Your task to perform on an android device: What's the price of the new iPhone on eBay? Image 0: 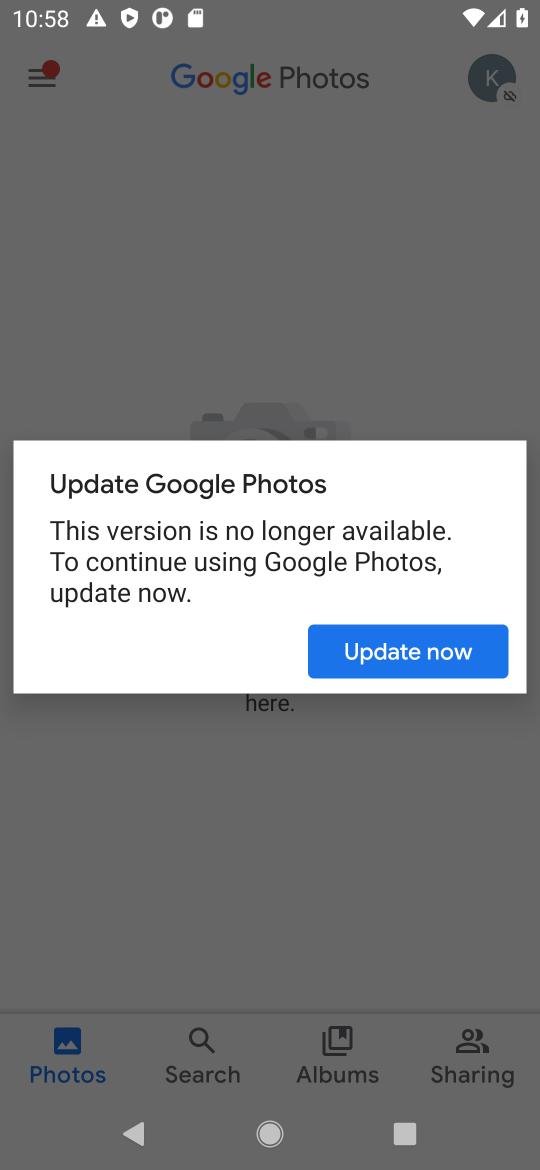
Step 0: press home button
Your task to perform on an android device: What's the price of the new iPhone on eBay? Image 1: 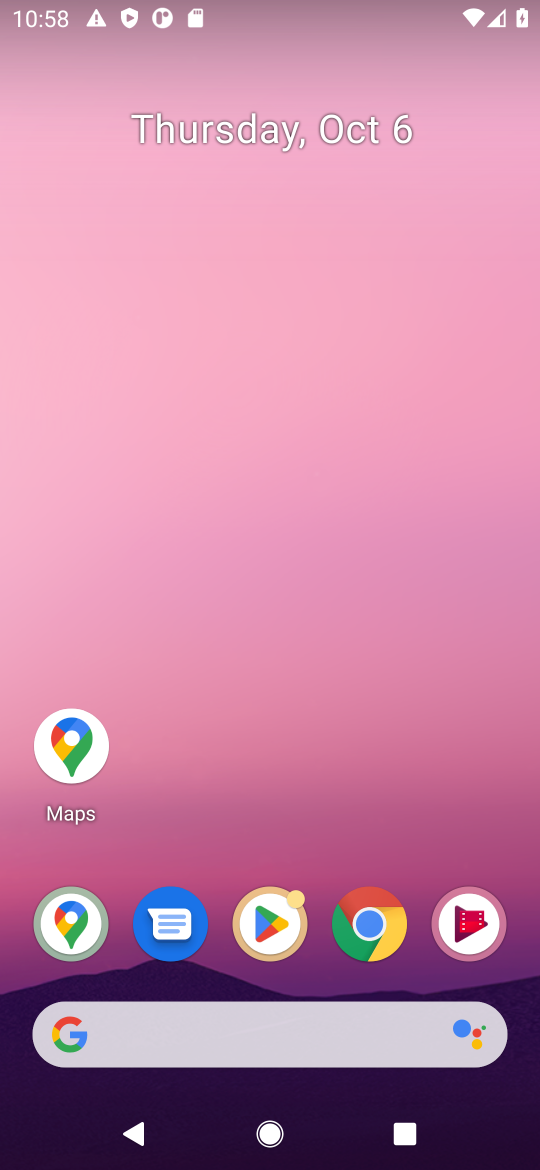
Step 1: click (367, 927)
Your task to perform on an android device: What's the price of the new iPhone on eBay? Image 2: 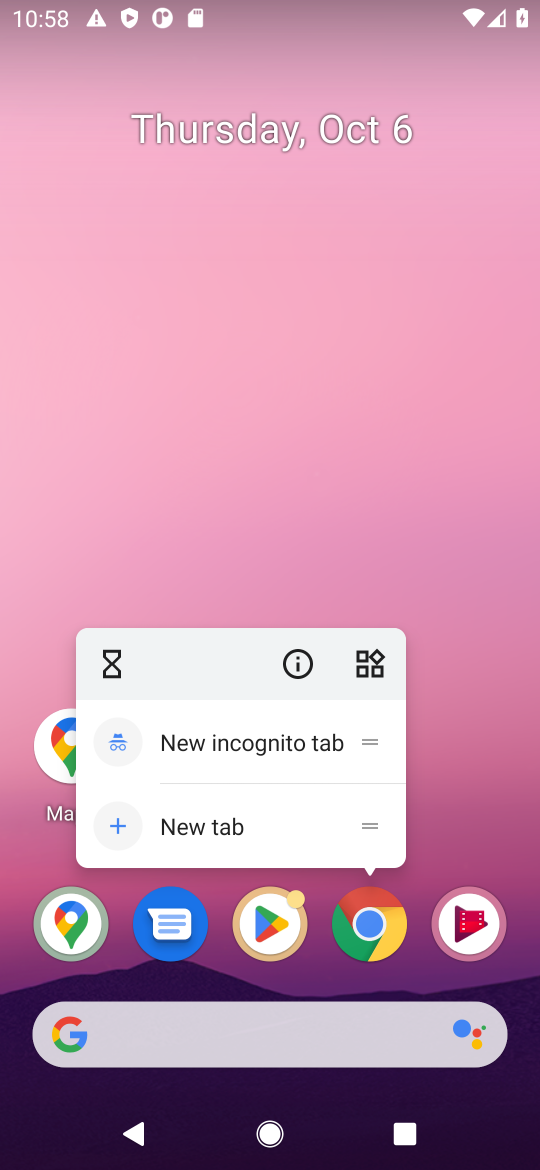
Step 2: click (367, 927)
Your task to perform on an android device: What's the price of the new iPhone on eBay? Image 3: 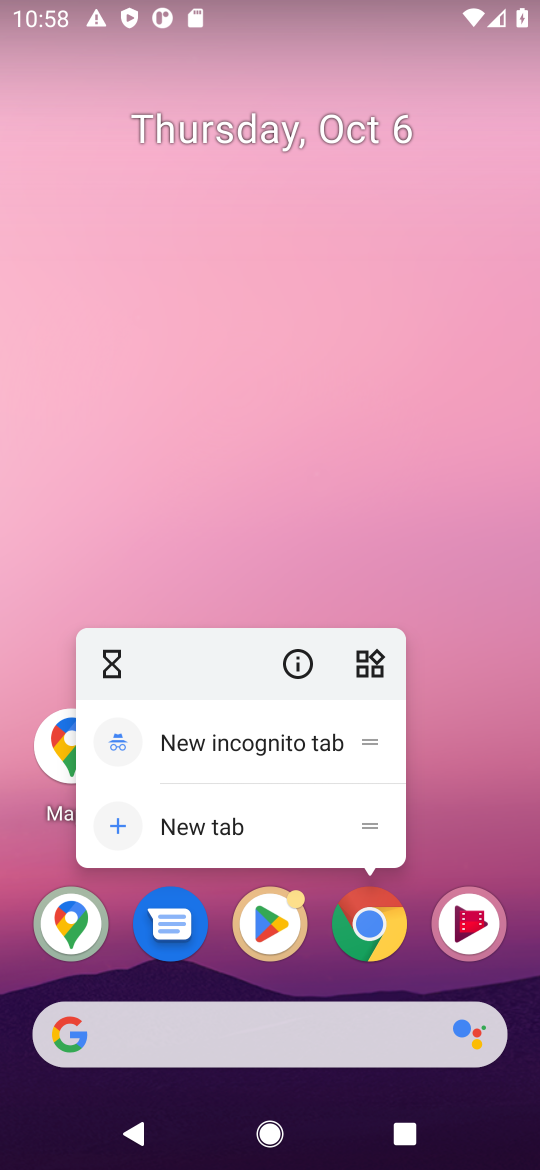
Step 3: click (365, 936)
Your task to perform on an android device: What's the price of the new iPhone on eBay? Image 4: 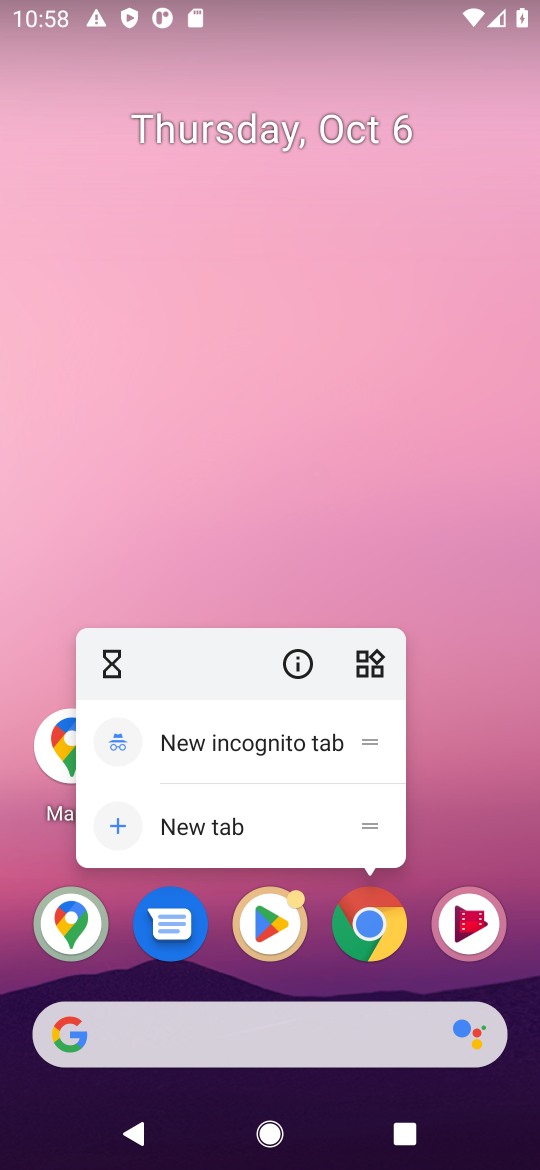
Step 4: click (374, 928)
Your task to perform on an android device: What's the price of the new iPhone on eBay? Image 5: 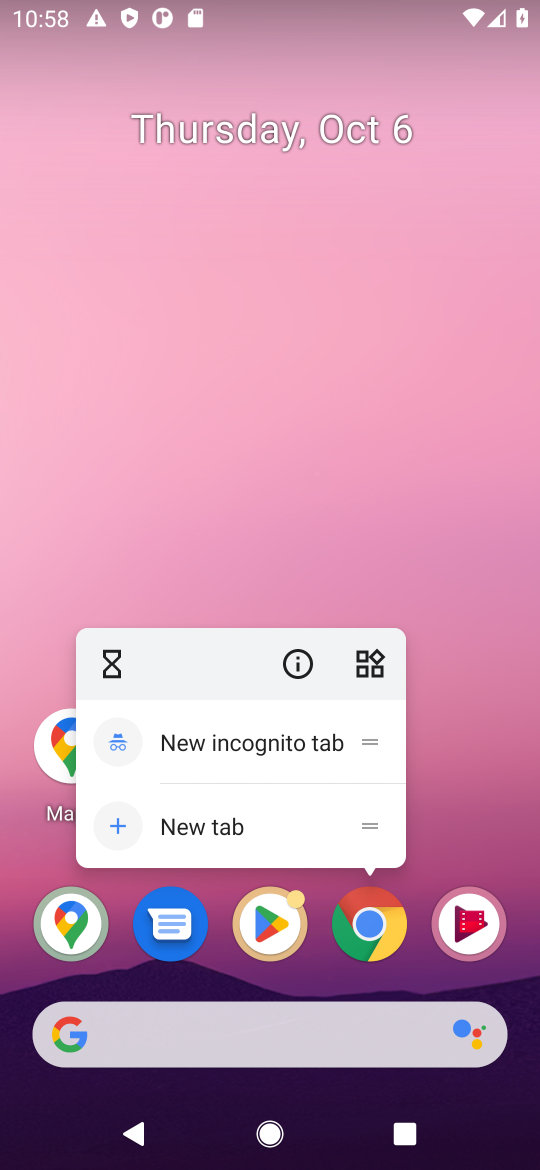
Step 5: click (374, 928)
Your task to perform on an android device: What's the price of the new iPhone on eBay? Image 6: 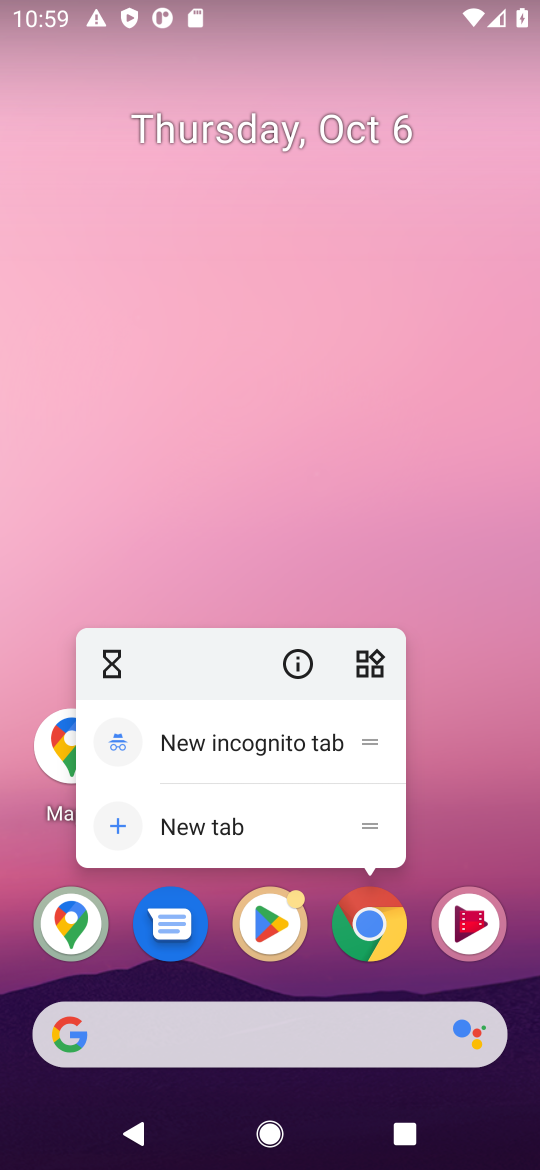
Step 6: click (374, 930)
Your task to perform on an android device: What's the price of the new iPhone on eBay? Image 7: 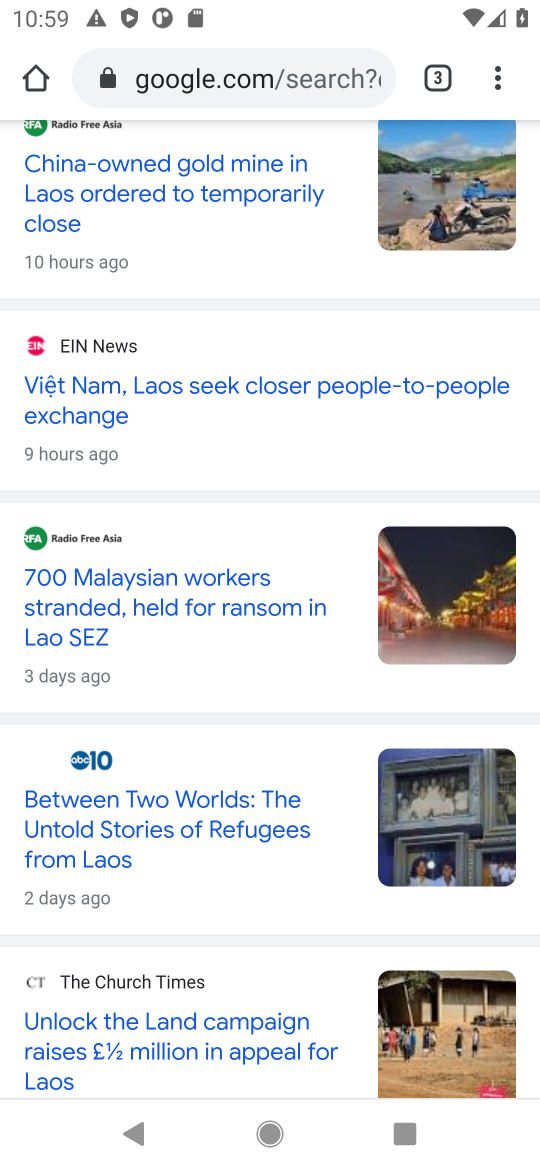
Step 7: click (304, 77)
Your task to perform on an android device: What's the price of the new iPhone on eBay? Image 8: 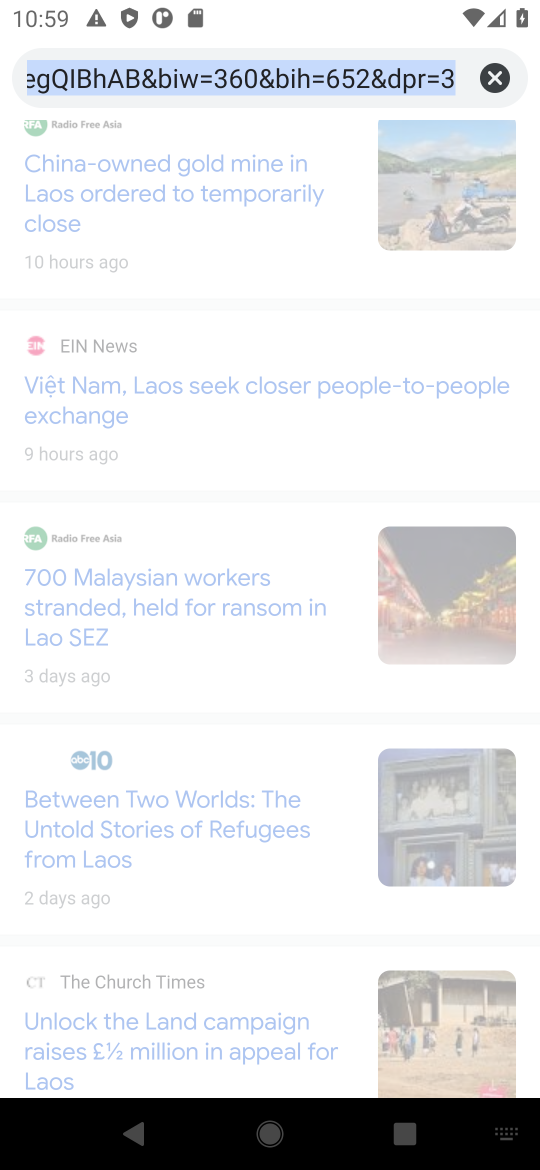
Step 8: click (481, 70)
Your task to perform on an android device: What's the price of the new iPhone on eBay? Image 9: 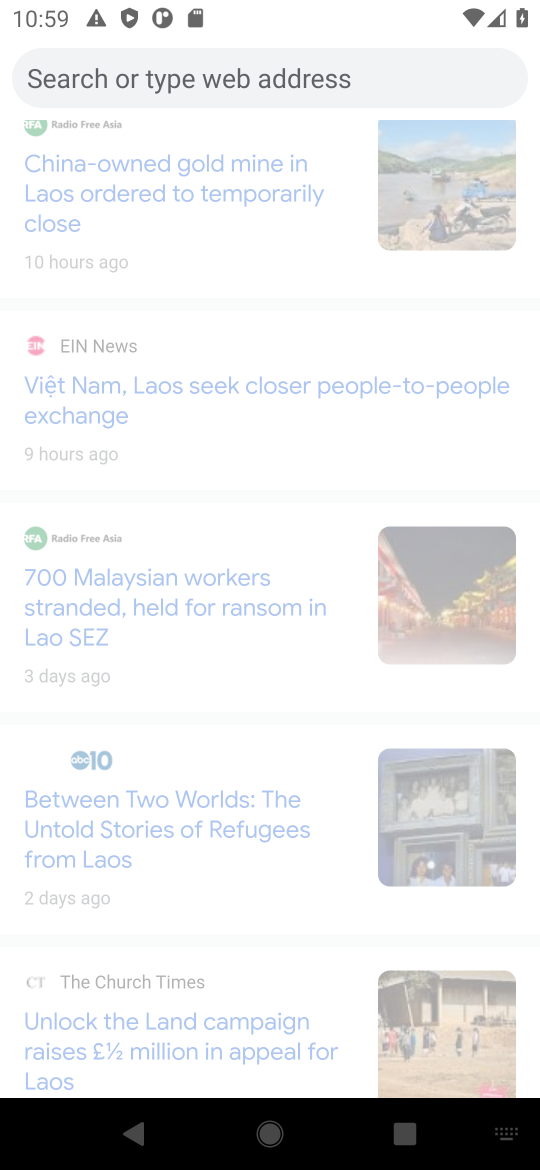
Step 9: type "price of the new iPhone on eBay"
Your task to perform on an android device: What's the price of the new iPhone on eBay? Image 10: 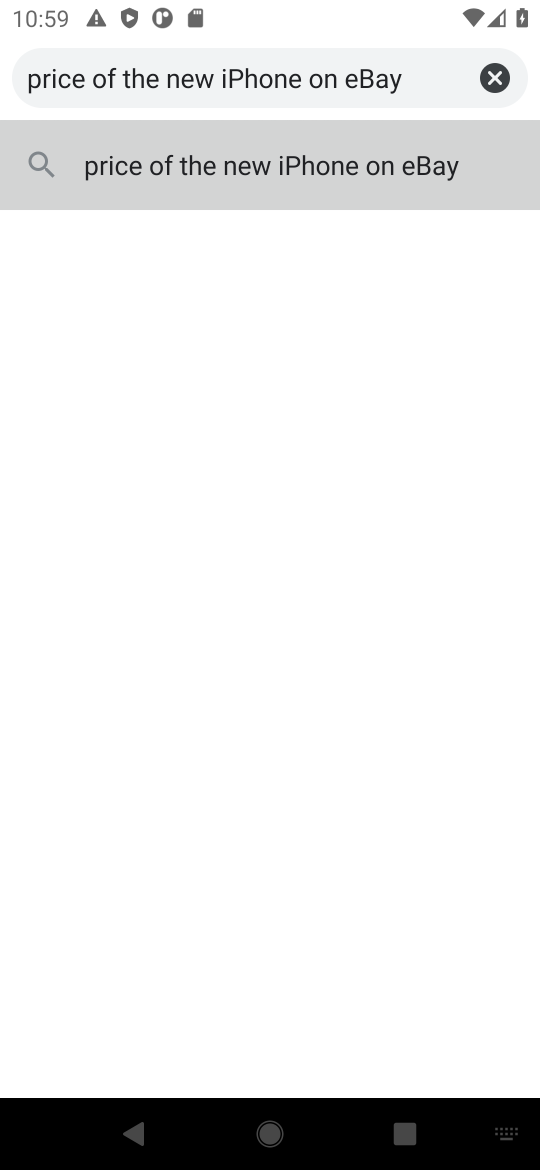
Step 10: click (309, 160)
Your task to perform on an android device: What's the price of the new iPhone on eBay? Image 11: 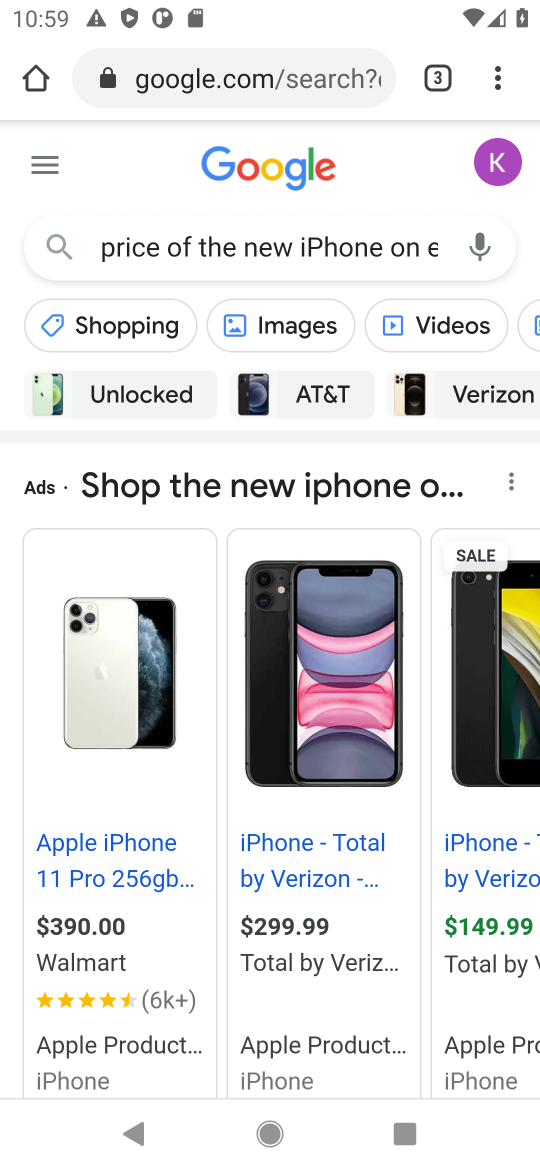
Step 11: drag from (235, 955) to (466, 183)
Your task to perform on an android device: What's the price of the new iPhone on eBay? Image 12: 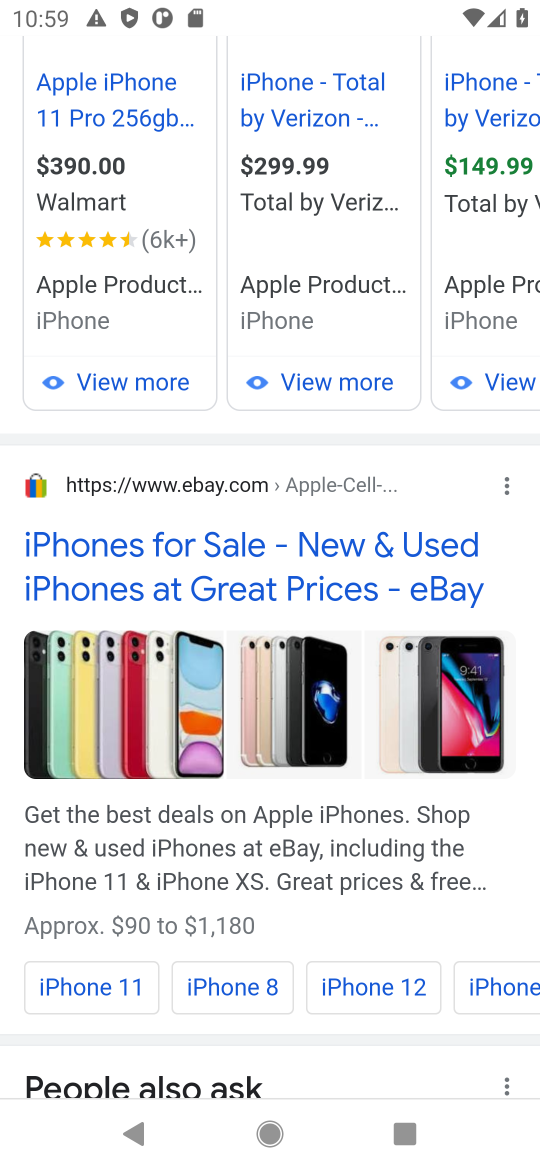
Step 12: click (339, 544)
Your task to perform on an android device: What's the price of the new iPhone on eBay? Image 13: 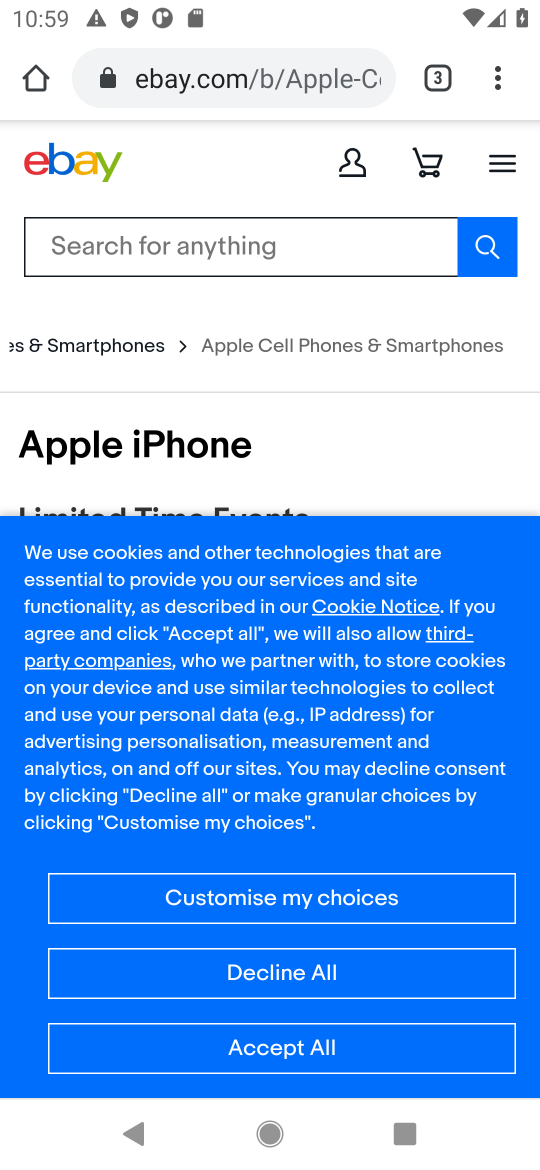
Step 13: click (281, 1052)
Your task to perform on an android device: What's the price of the new iPhone on eBay? Image 14: 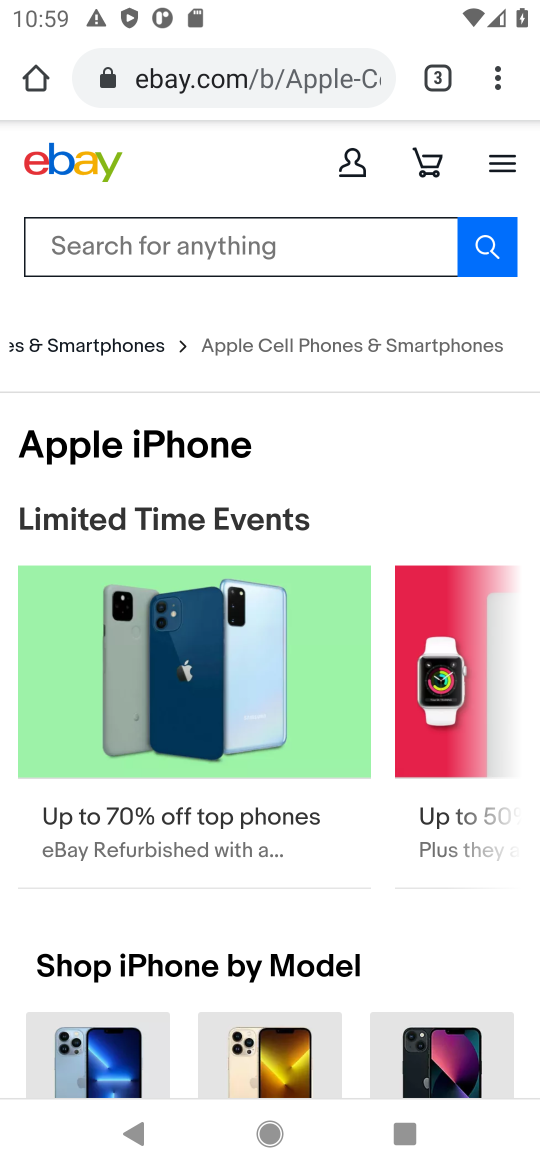
Step 14: drag from (300, 945) to (403, 91)
Your task to perform on an android device: What's the price of the new iPhone on eBay? Image 15: 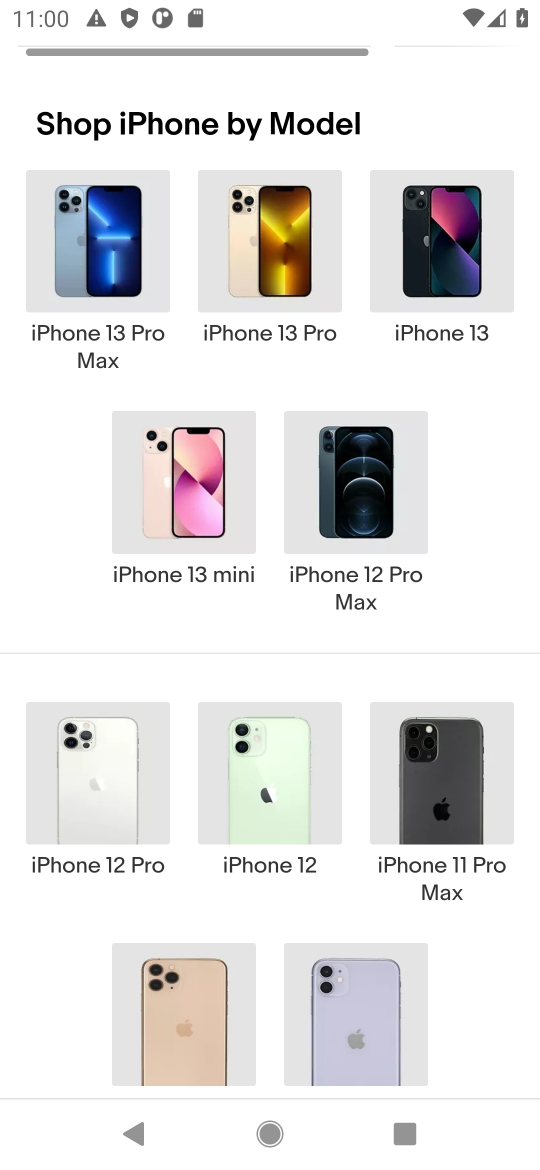
Step 15: drag from (213, 941) to (498, 233)
Your task to perform on an android device: What's the price of the new iPhone on eBay? Image 16: 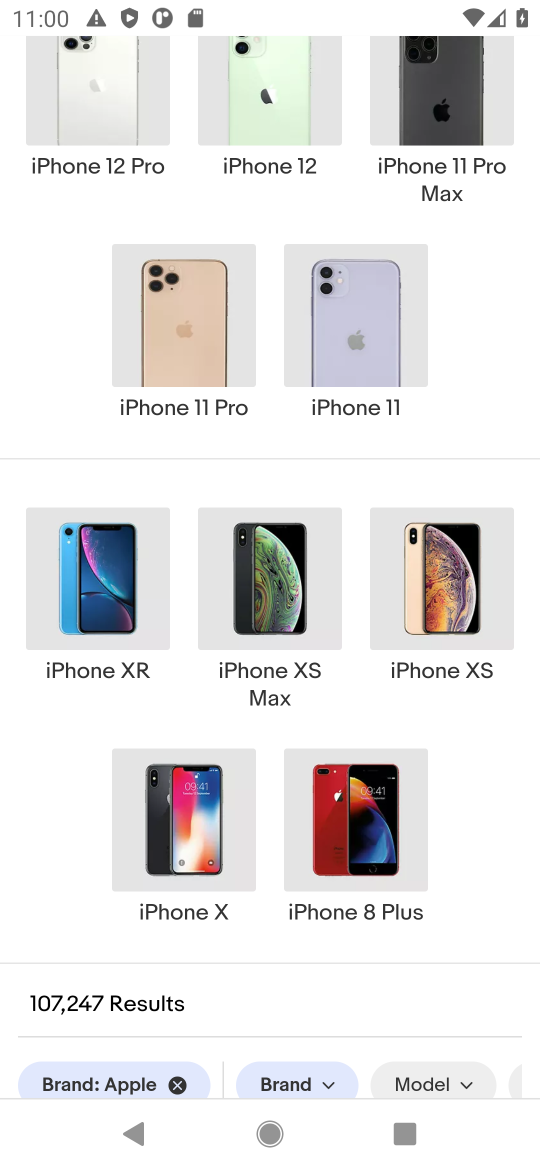
Step 16: drag from (364, 367) to (98, 1080)
Your task to perform on an android device: What's the price of the new iPhone on eBay? Image 17: 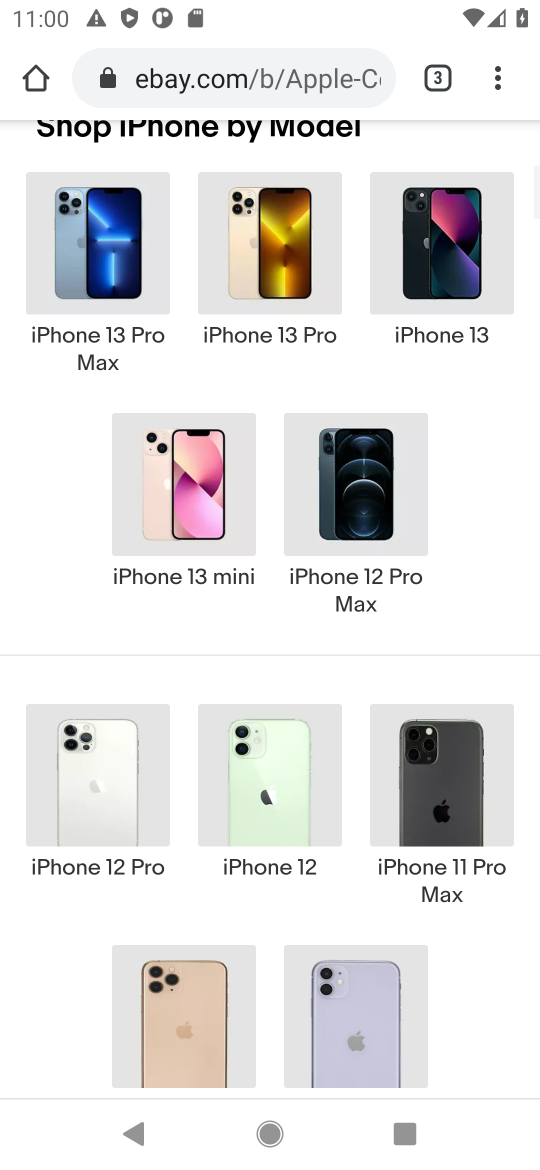
Step 17: drag from (260, 339) to (124, 977)
Your task to perform on an android device: What's the price of the new iPhone on eBay? Image 18: 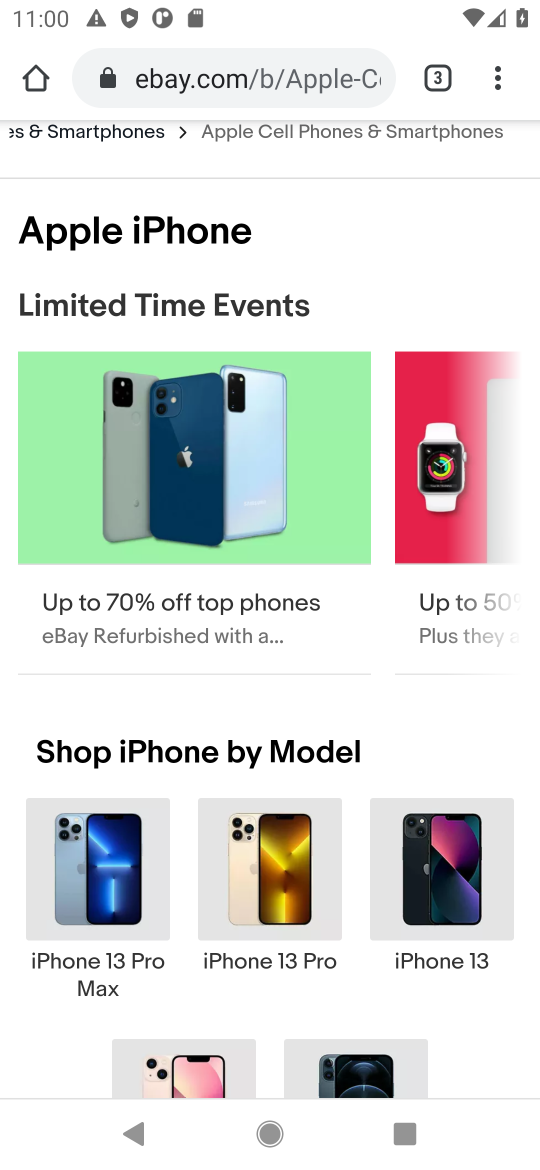
Step 18: drag from (280, 523) to (206, 956)
Your task to perform on an android device: What's the price of the new iPhone on eBay? Image 19: 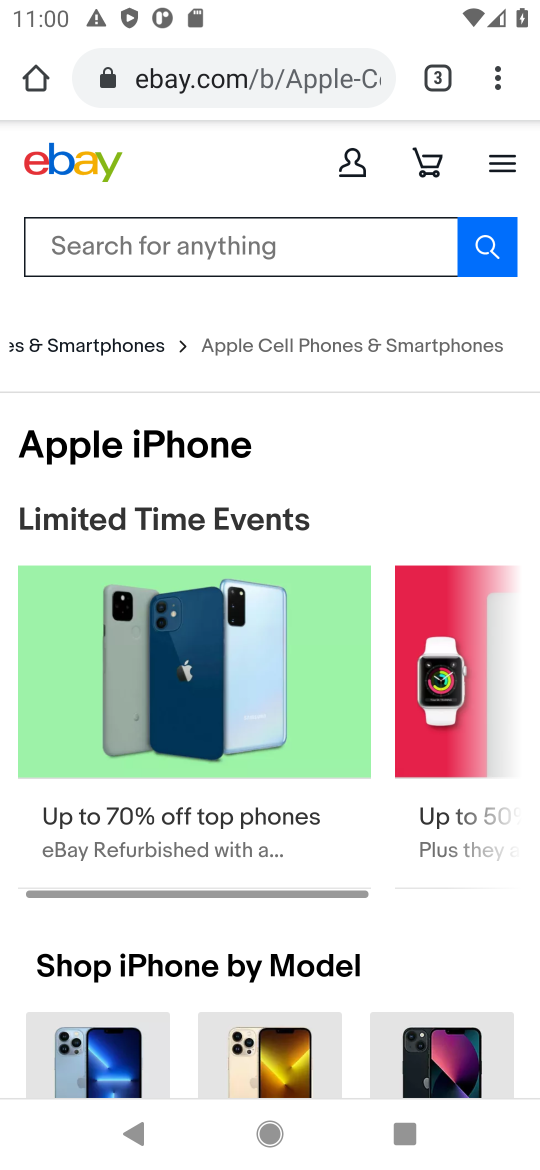
Step 19: click (253, 732)
Your task to perform on an android device: What's the price of the new iPhone on eBay? Image 20: 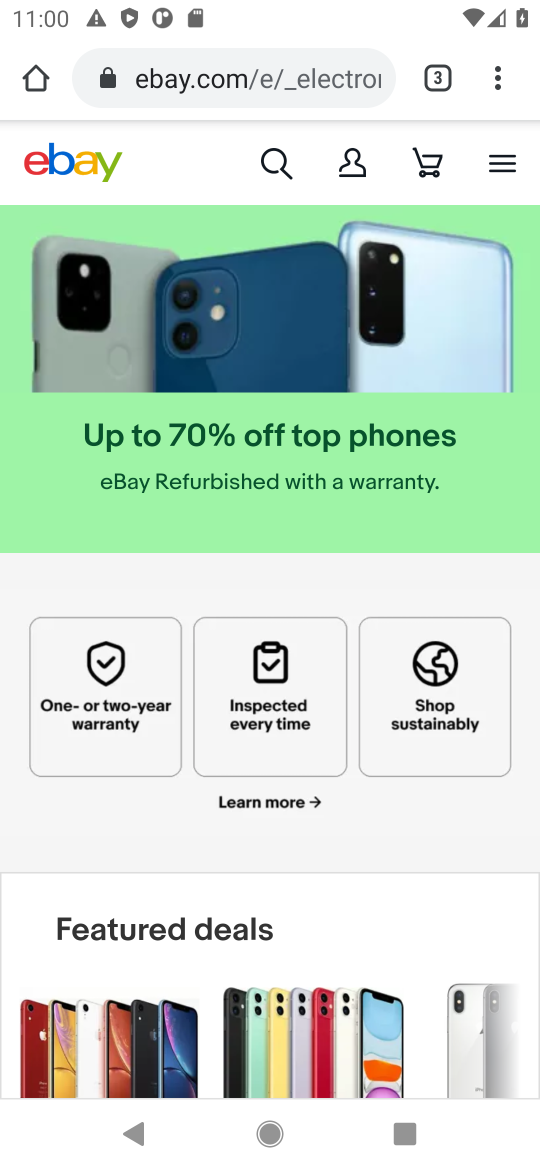
Step 20: task complete